Your task to perform on an android device: see sites visited before in the chrome app Image 0: 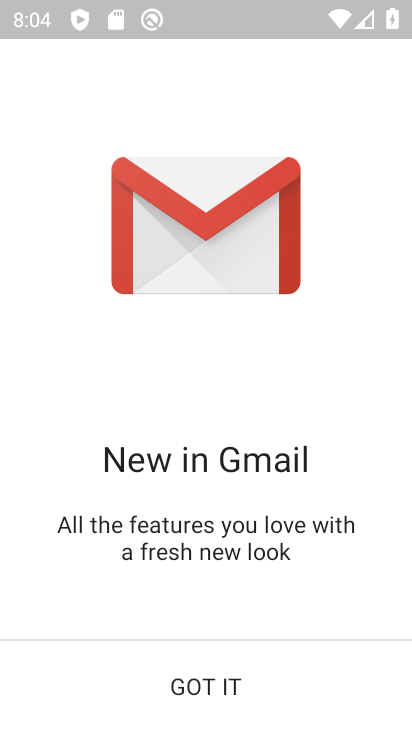
Step 0: click (378, 461)
Your task to perform on an android device: see sites visited before in the chrome app Image 1: 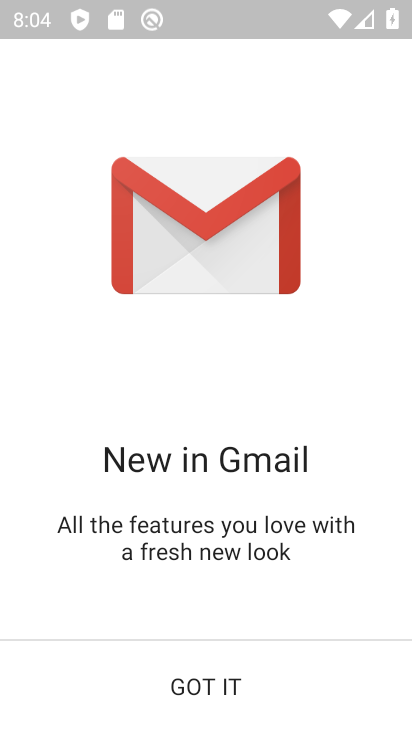
Step 1: press home button
Your task to perform on an android device: see sites visited before in the chrome app Image 2: 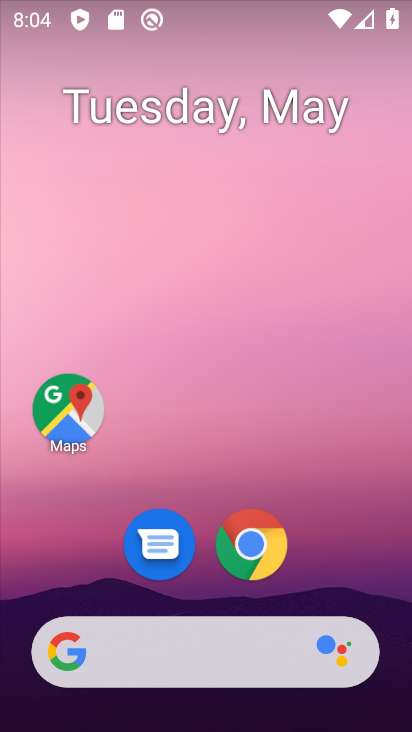
Step 2: click (256, 538)
Your task to perform on an android device: see sites visited before in the chrome app Image 3: 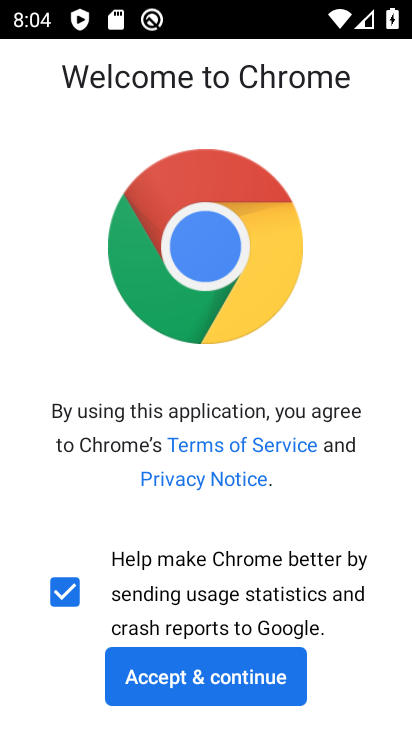
Step 3: click (216, 667)
Your task to perform on an android device: see sites visited before in the chrome app Image 4: 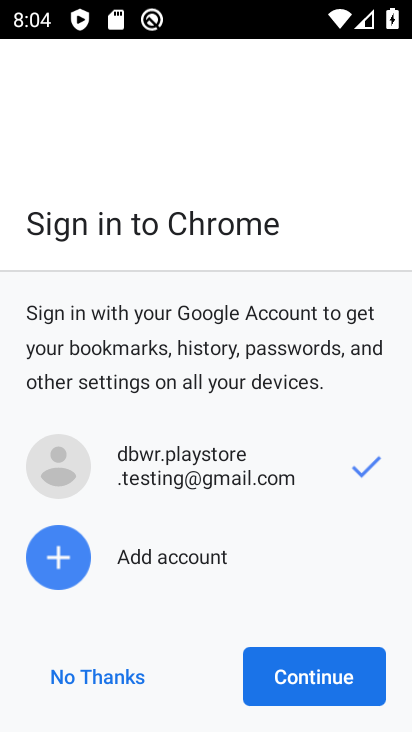
Step 4: click (298, 669)
Your task to perform on an android device: see sites visited before in the chrome app Image 5: 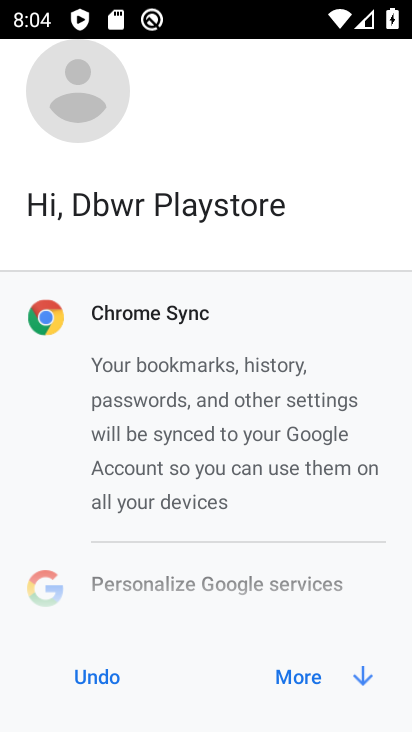
Step 5: click (357, 672)
Your task to perform on an android device: see sites visited before in the chrome app Image 6: 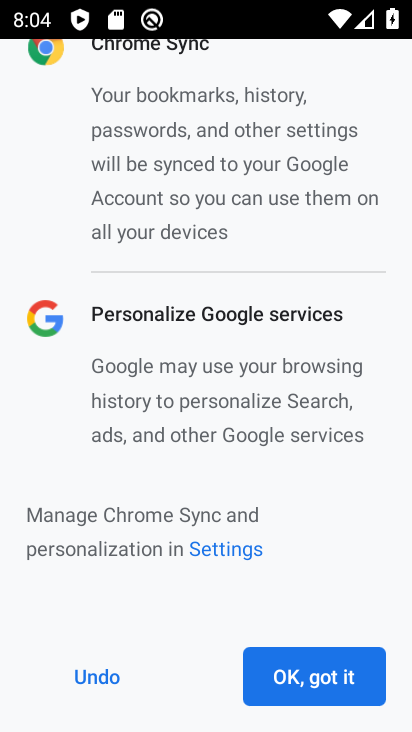
Step 6: click (324, 680)
Your task to perform on an android device: see sites visited before in the chrome app Image 7: 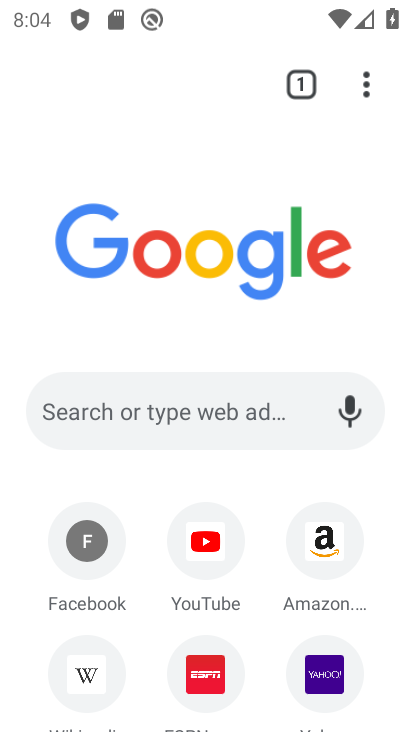
Step 7: click (363, 84)
Your task to perform on an android device: see sites visited before in the chrome app Image 8: 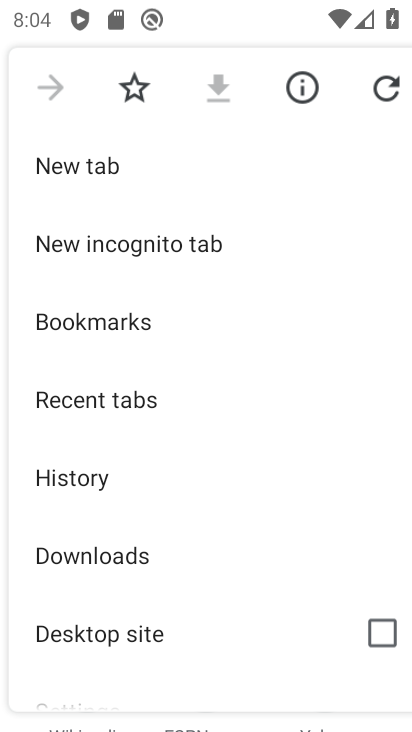
Step 8: drag from (187, 462) to (164, 254)
Your task to perform on an android device: see sites visited before in the chrome app Image 9: 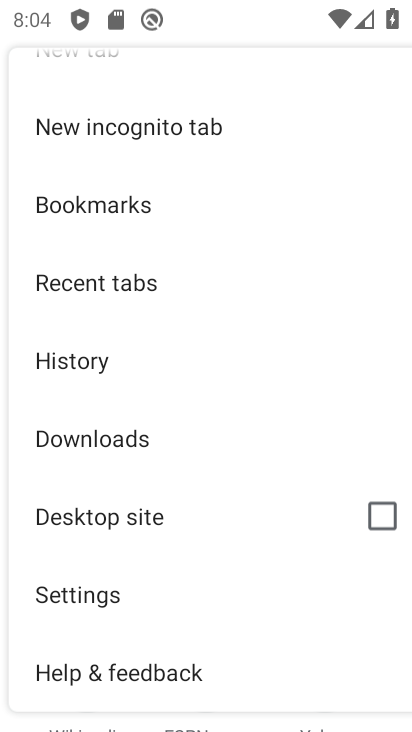
Step 9: click (88, 359)
Your task to perform on an android device: see sites visited before in the chrome app Image 10: 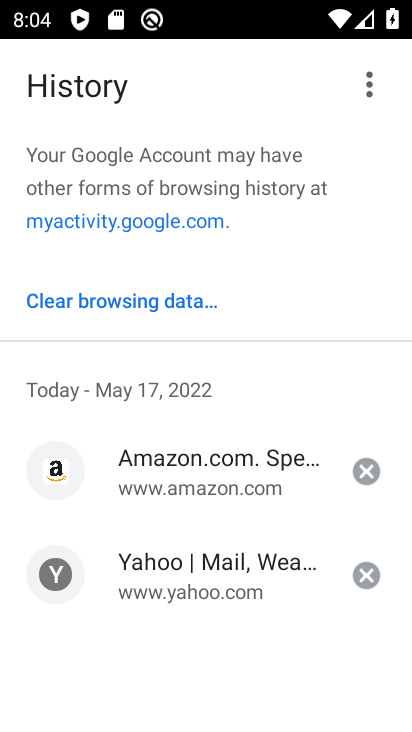
Step 10: task complete